Your task to perform on an android device: turn pop-ups off in chrome Image 0: 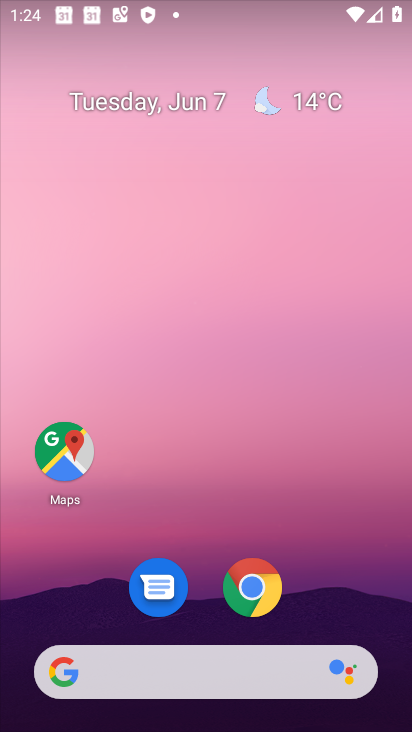
Step 0: drag from (252, 612) to (288, 80)
Your task to perform on an android device: turn pop-ups off in chrome Image 1: 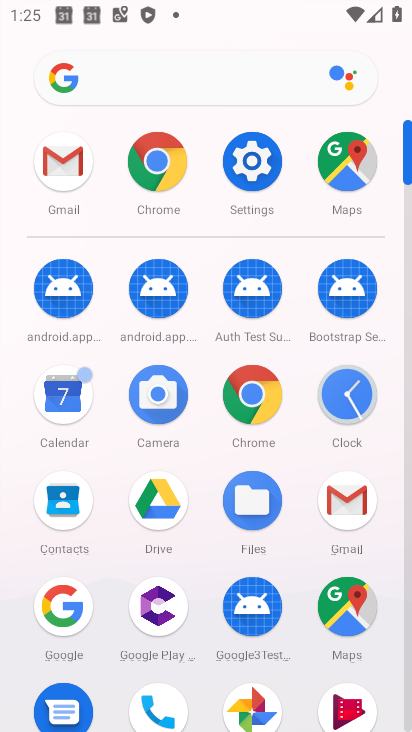
Step 1: click (179, 187)
Your task to perform on an android device: turn pop-ups off in chrome Image 2: 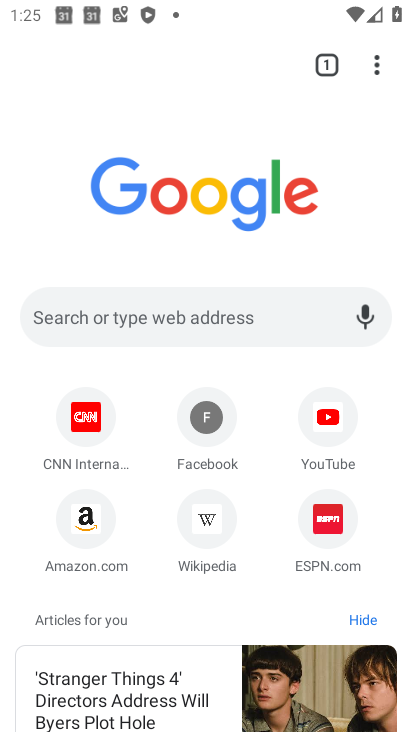
Step 2: click (374, 63)
Your task to perform on an android device: turn pop-ups off in chrome Image 3: 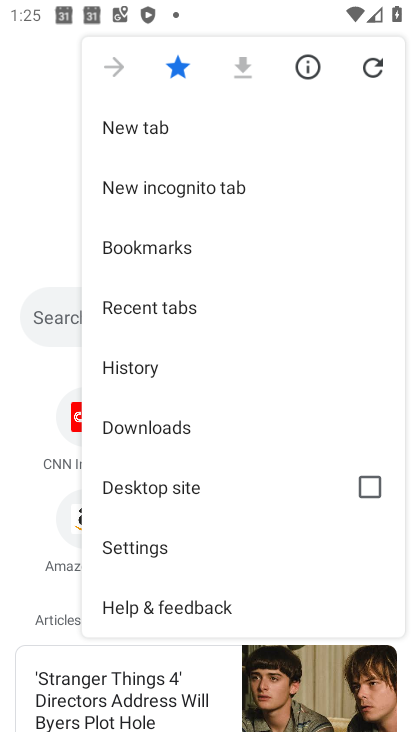
Step 3: click (167, 546)
Your task to perform on an android device: turn pop-ups off in chrome Image 4: 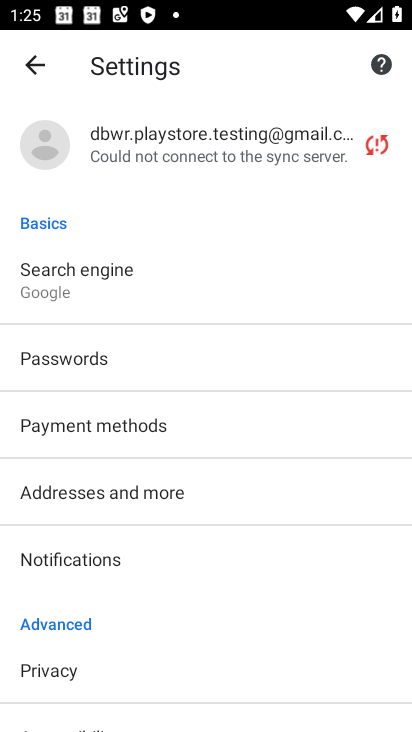
Step 4: drag from (164, 629) to (215, 305)
Your task to perform on an android device: turn pop-ups off in chrome Image 5: 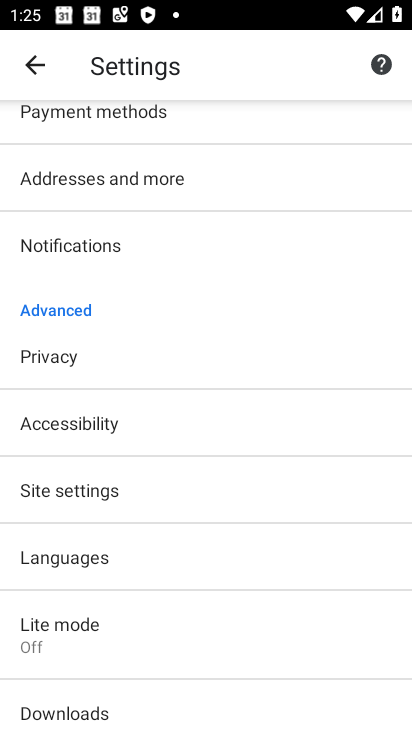
Step 5: click (125, 491)
Your task to perform on an android device: turn pop-ups off in chrome Image 6: 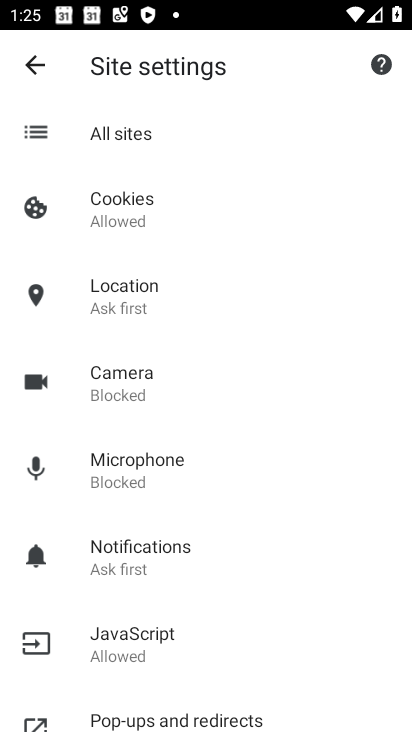
Step 6: drag from (162, 595) to (192, 115)
Your task to perform on an android device: turn pop-ups off in chrome Image 7: 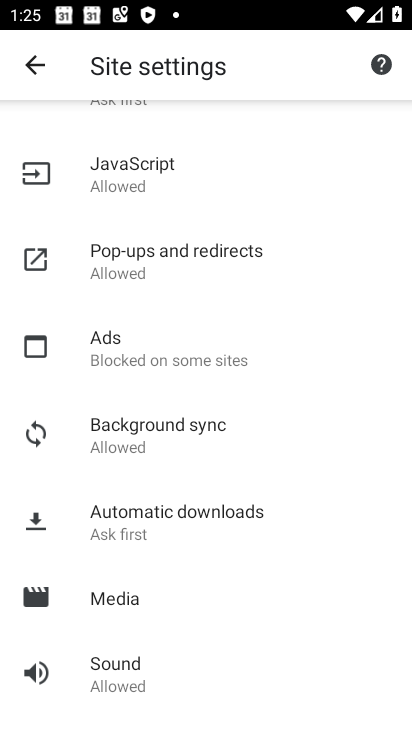
Step 7: click (220, 260)
Your task to perform on an android device: turn pop-ups off in chrome Image 8: 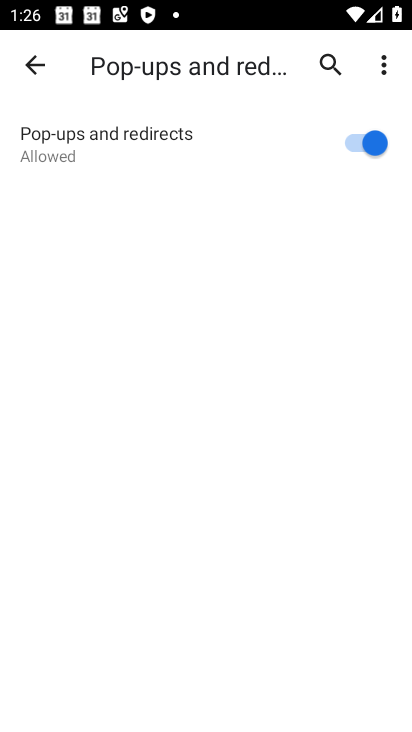
Step 8: click (354, 145)
Your task to perform on an android device: turn pop-ups off in chrome Image 9: 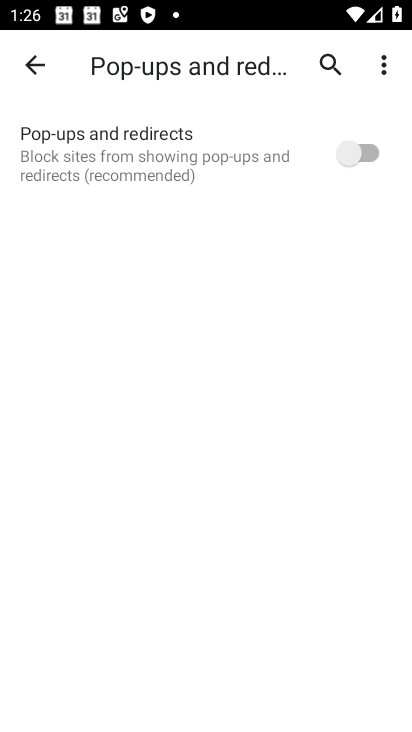
Step 9: task complete